Your task to perform on an android device: Is it going to rain tomorrow? Image 0: 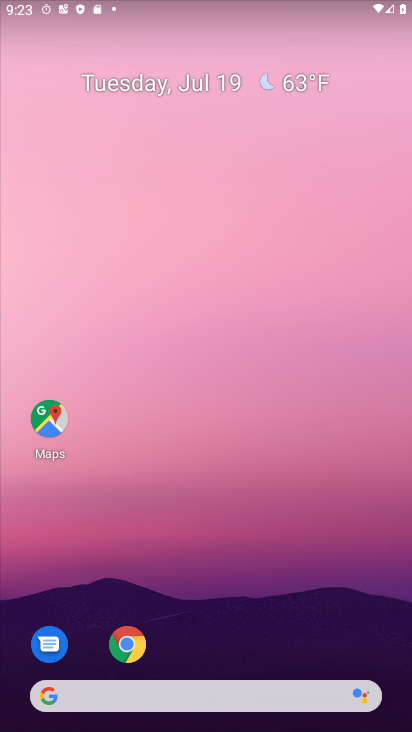
Step 0: click (337, 38)
Your task to perform on an android device: Is it going to rain tomorrow? Image 1: 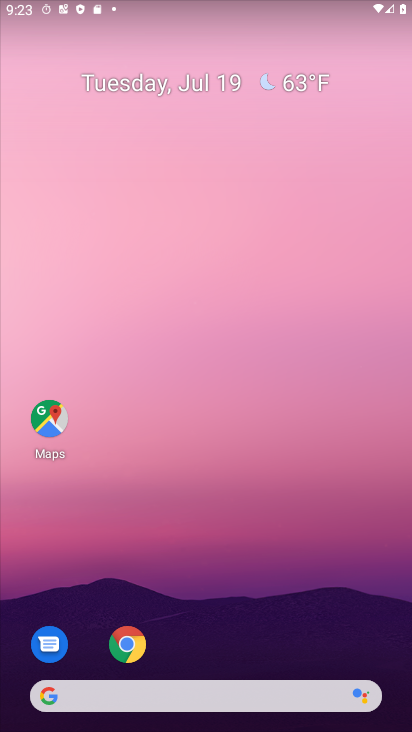
Step 1: click (272, 85)
Your task to perform on an android device: Is it going to rain tomorrow? Image 2: 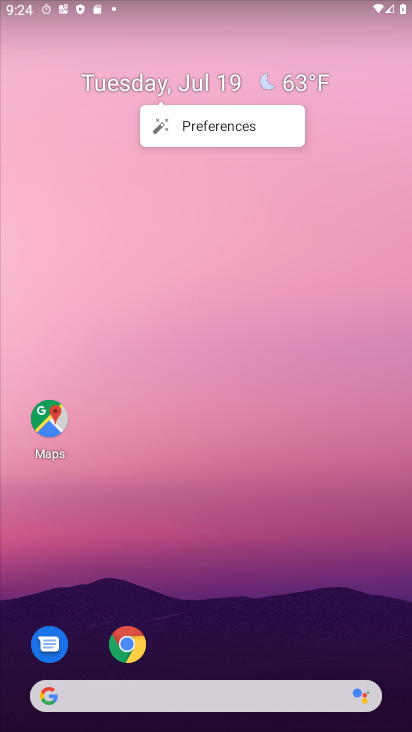
Step 2: drag from (211, 624) to (211, 60)
Your task to perform on an android device: Is it going to rain tomorrow? Image 3: 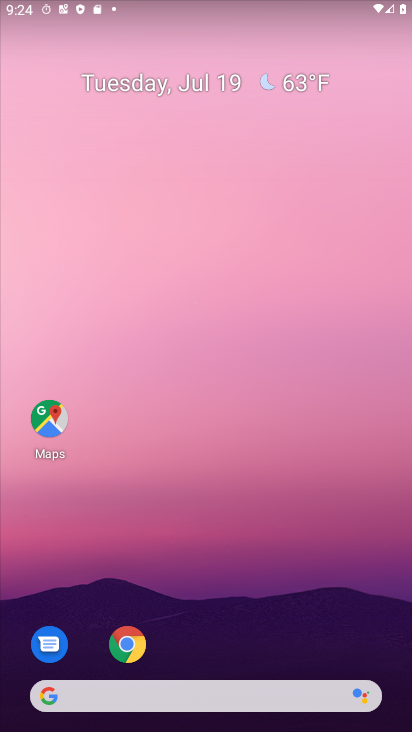
Step 3: drag from (258, 536) to (216, 23)
Your task to perform on an android device: Is it going to rain tomorrow? Image 4: 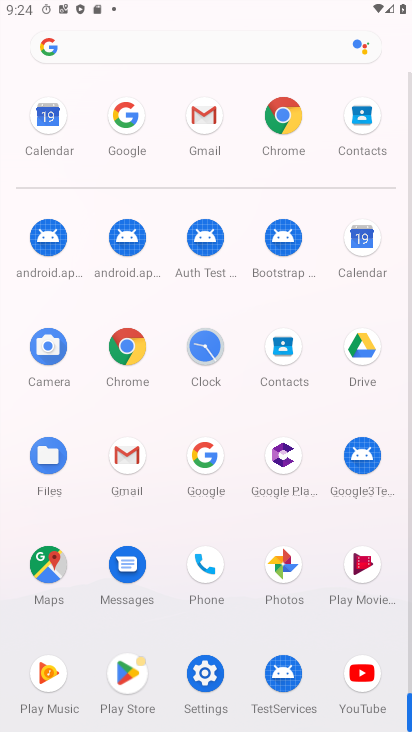
Step 4: press back button
Your task to perform on an android device: Is it going to rain tomorrow? Image 5: 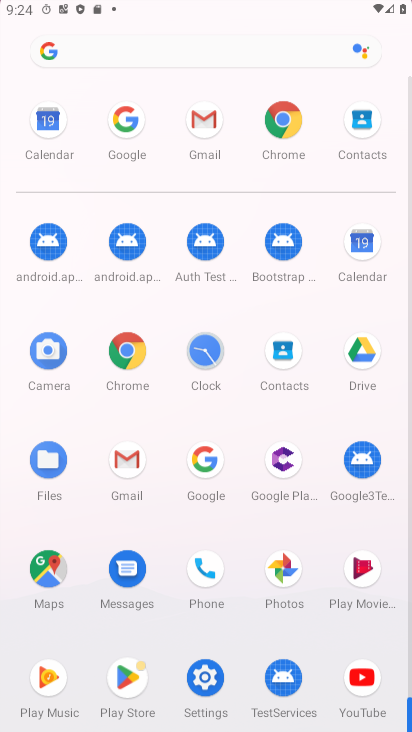
Step 5: press back button
Your task to perform on an android device: Is it going to rain tomorrow? Image 6: 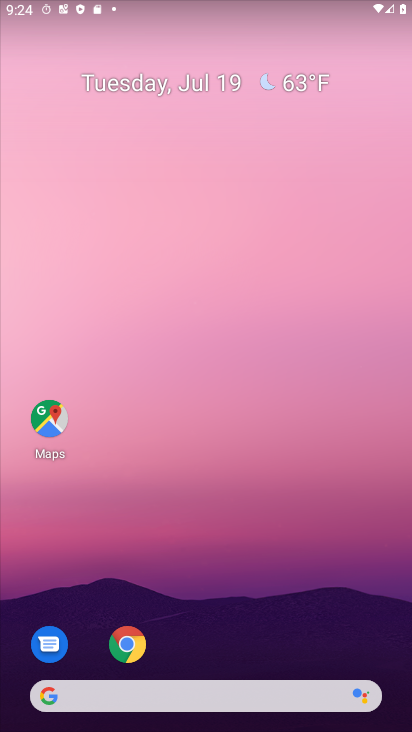
Step 6: drag from (198, 445) to (156, 115)
Your task to perform on an android device: Is it going to rain tomorrow? Image 7: 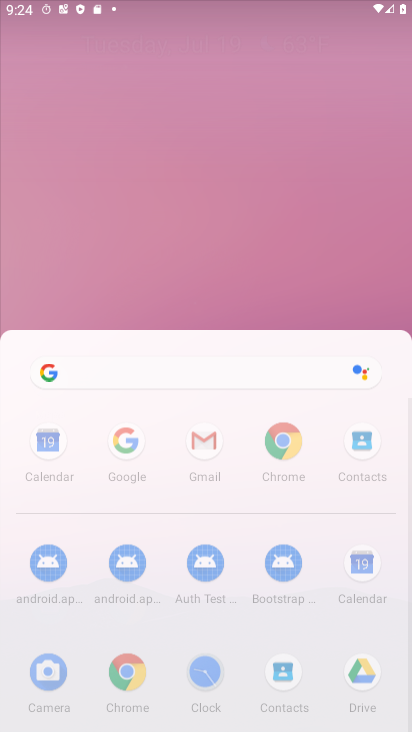
Step 7: drag from (111, 591) to (92, 58)
Your task to perform on an android device: Is it going to rain tomorrow? Image 8: 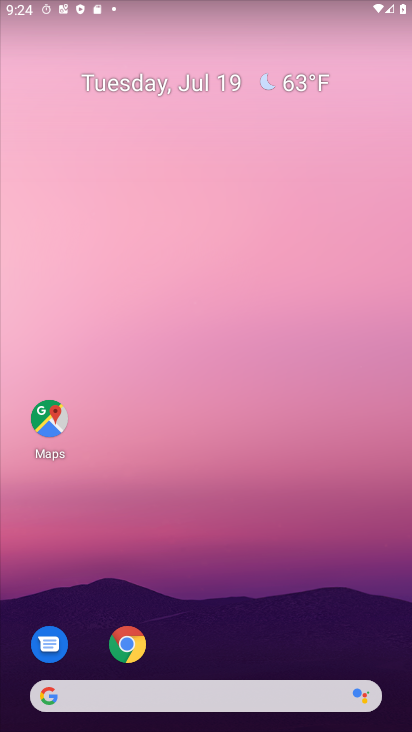
Step 8: drag from (104, 376) to (116, 90)
Your task to perform on an android device: Is it going to rain tomorrow? Image 9: 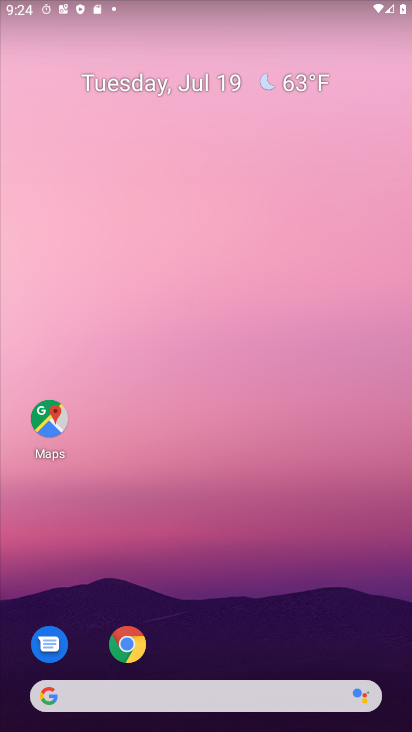
Step 9: drag from (138, 531) to (169, 171)
Your task to perform on an android device: Is it going to rain tomorrow? Image 10: 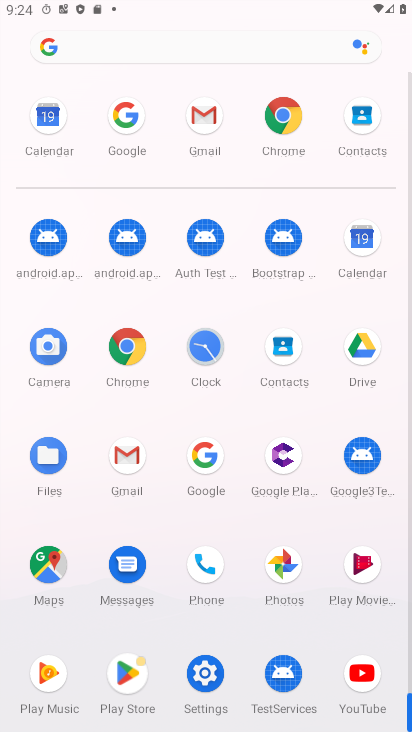
Step 10: click (291, 118)
Your task to perform on an android device: Is it going to rain tomorrow? Image 11: 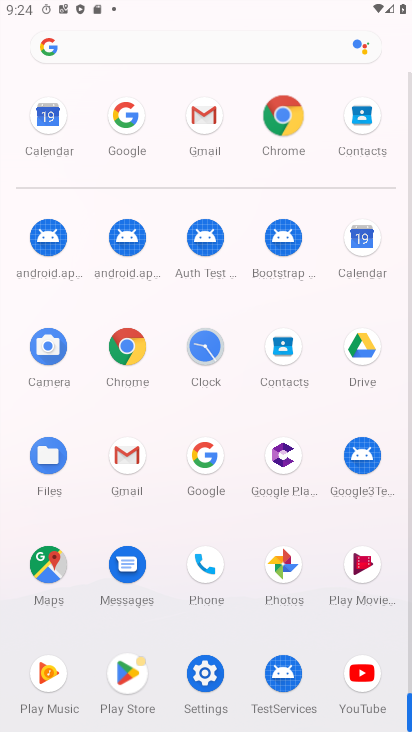
Step 11: click (280, 124)
Your task to perform on an android device: Is it going to rain tomorrow? Image 12: 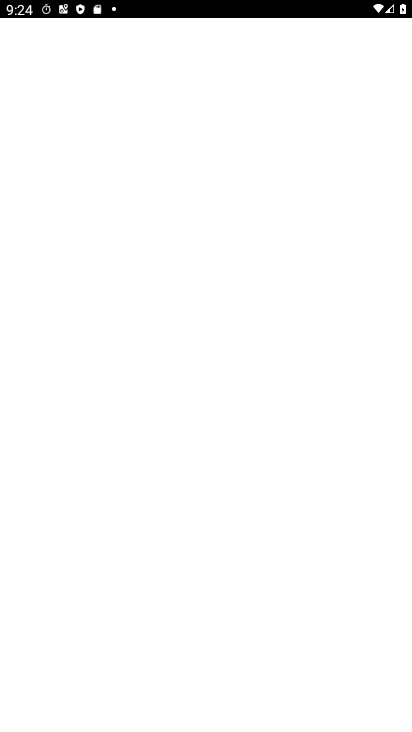
Step 12: click (255, 132)
Your task to perform on an android device: Is it going to rain tomorrow? Image 13: 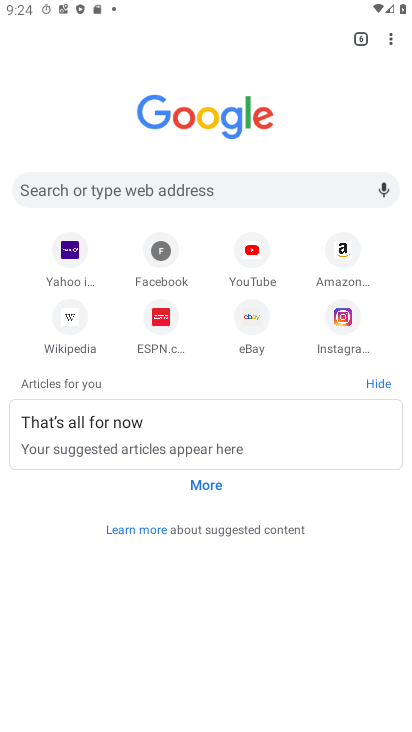
Step 13: click (71, 195)
Your task to perform on an android device: Is it going to rain tomorrow? Image 14: 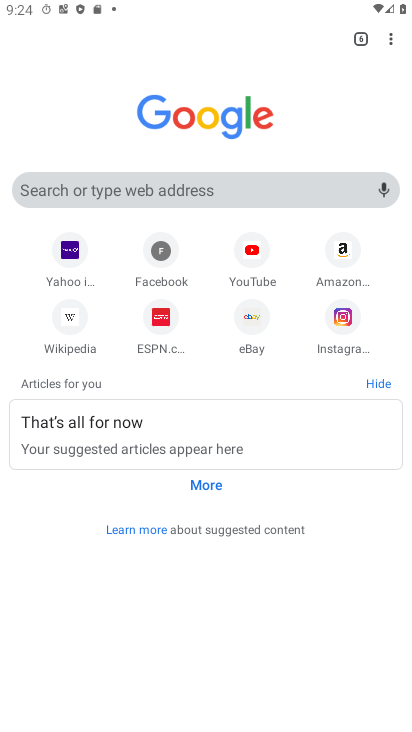
Step 14: click (72, 191)
Your task to perform on an android device: Is it going to rain tomorrow? Image 15: 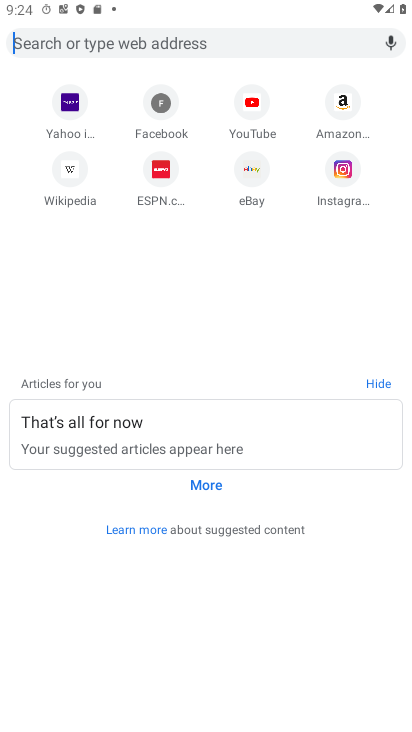
Step 15: click (72, 191)
Your task to perform on an android device: Is it going to rain tomorrow? Image 16: 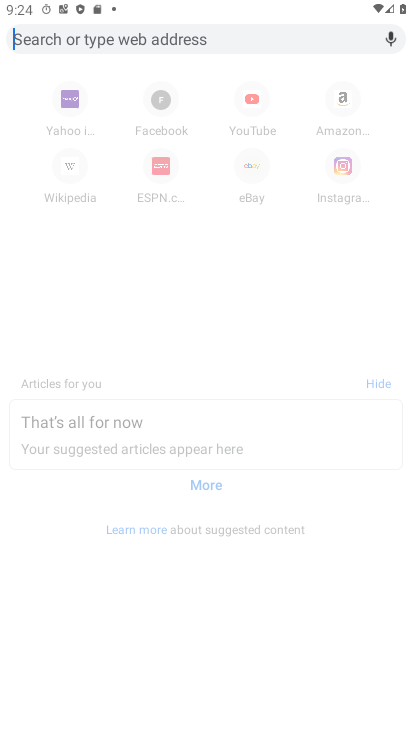
Step 16: click (73, 193)
Your task to perform on an android device: Is it going to rain tomorrow? Image 17: 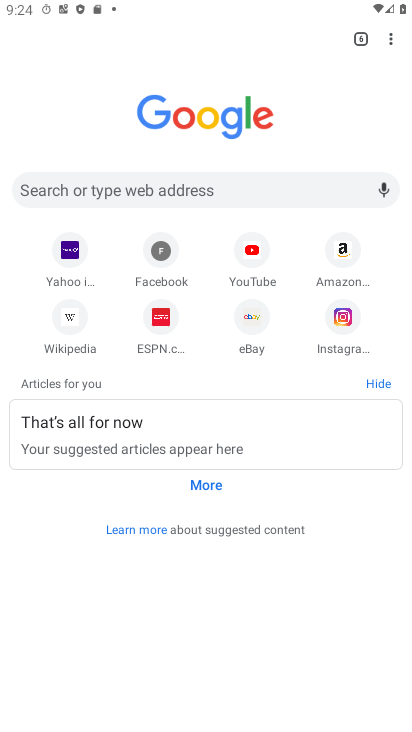
Step 17: click (67, 187)
Your task to perform on an android device: Is it going to rain tomorrow? Image 18: 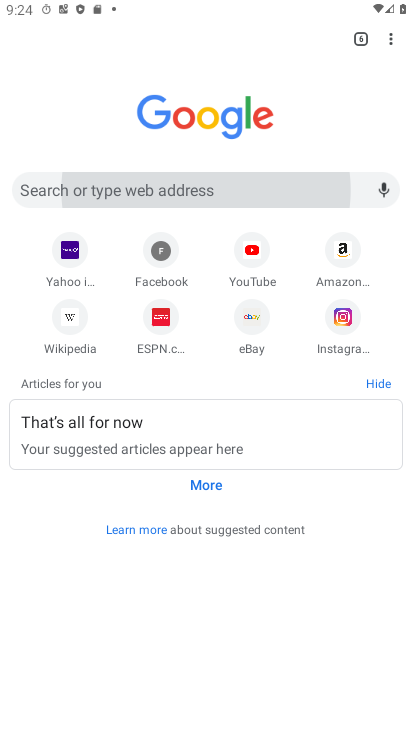
Step 18: click (67, 187)
Your task to perform on an android device: Is it going to rain tomorrow? Image 19: 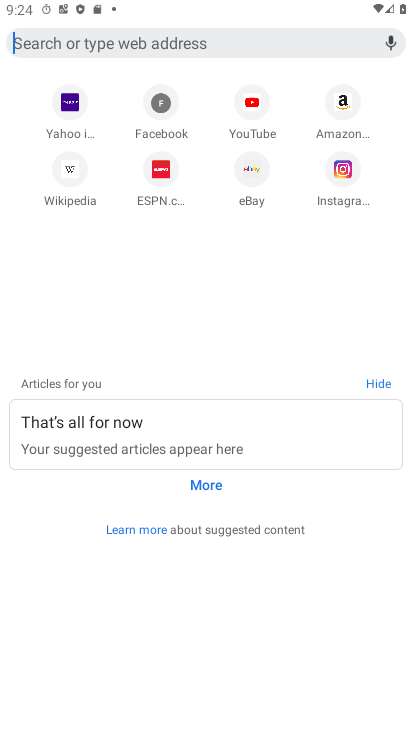
Step 19: click (67, 187)
Your task to perform on an android device: Is it going to rain tomorrow? Image 20: 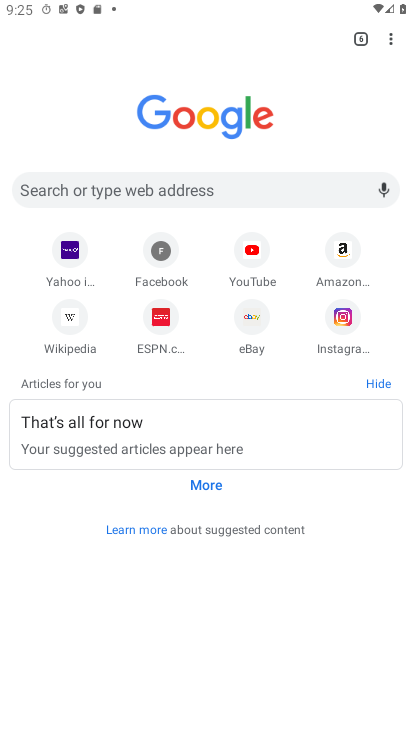
Step 20: click (38, 190)
Your task to perform on an android device: Is it going to rain tomorrow? Image 21: 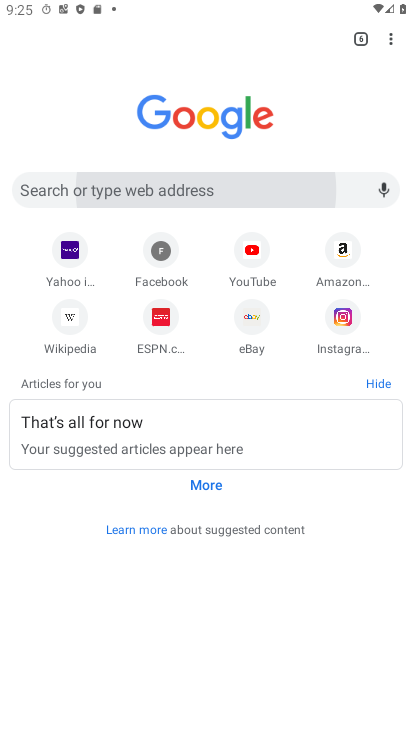
Step 21: click (38, 190)
Your task to perform on an android device: Is it going to rain tomorrow? Image 22: 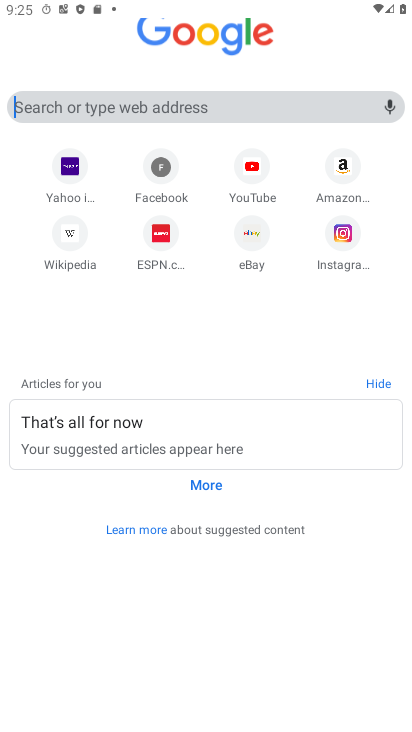
Step 22: click (39, 190)
Your task to perform on an android device: Is it going to rain tomorrow? Image 23: 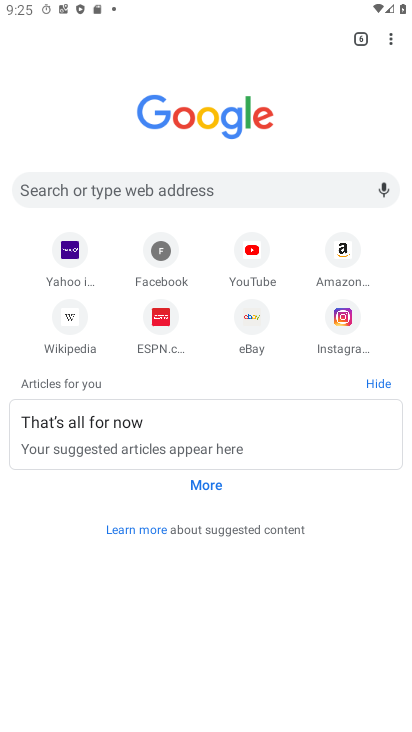
Step 23: click (128, 172)
Your task to perform on an android device: Is it going to rain tomorrow? Image 24: 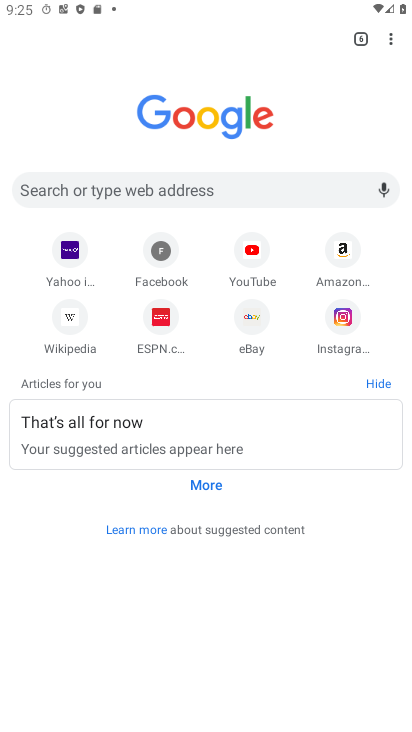
Step 24: click (63, 182)
Your task to perform on an android device: Is it going to rain tomorrow? Image 25: 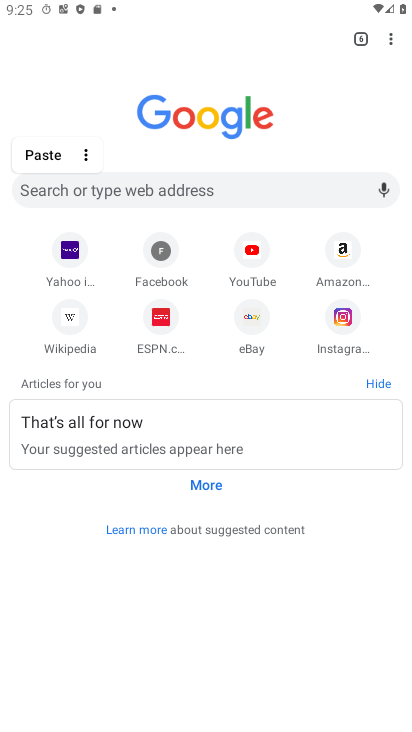
Step 25: type "is it going to rain tomorrow?"
Your task to perform on an android device: Is it going to rain tomorrow? Image 26: 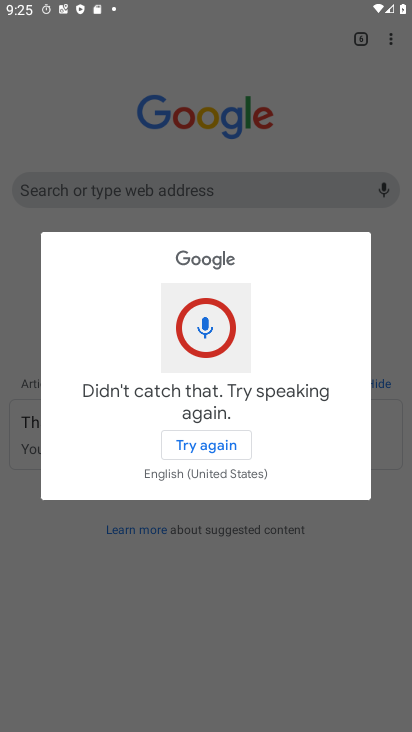
Step 26: click (321, 151)
Your task to perform on an android device: Is it going to rain tomorrow? Image 27: 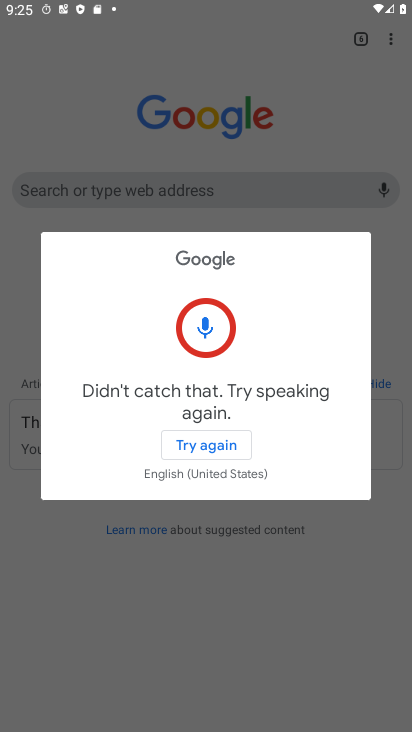
Step 27: click (326, 151)
Your task to perform on an android device: Is it going to rain tomorrow? Image 28: 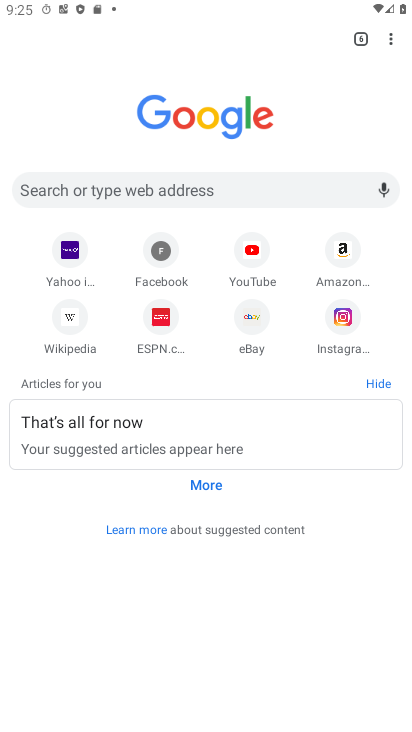
Step 28: task complete